Your task to perform on an android device: Find coffee shops on Maps Image 0: 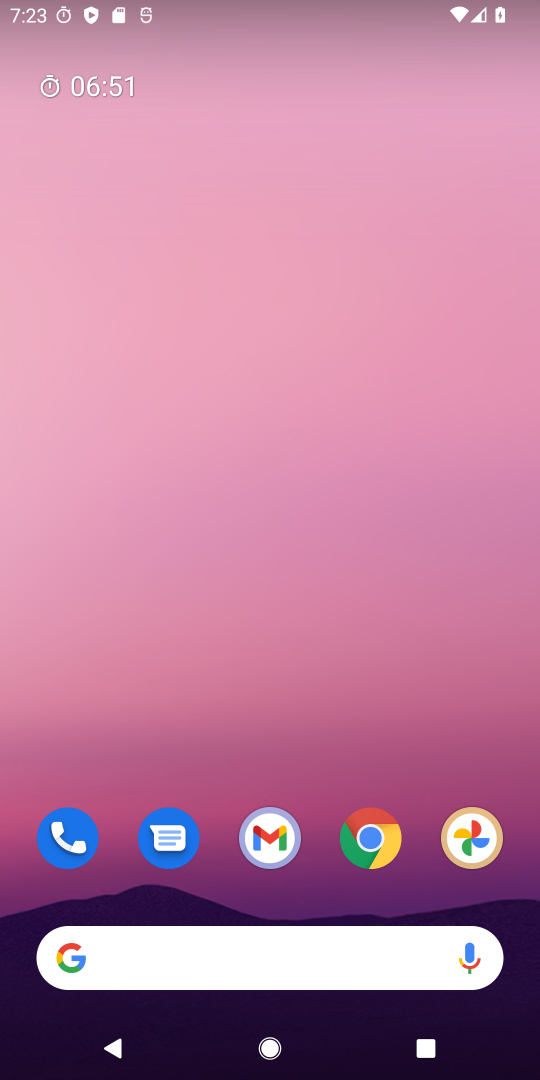
Step 0: drag from (321, 813) to (442, 71)
Your task to perform on an android device: Find coffee shops on Maps Image 1: 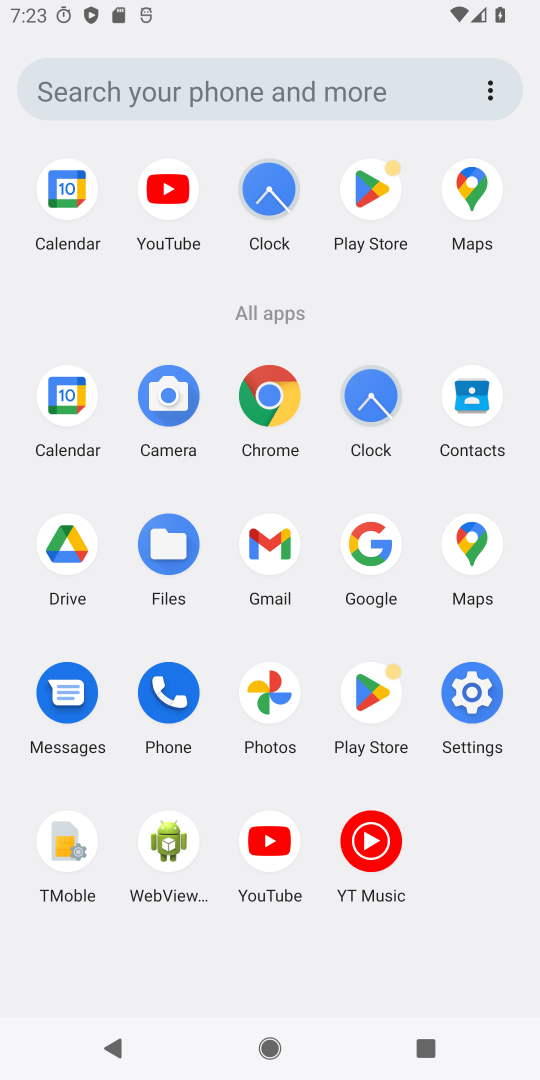
Step 1: click (476, 536)
Your task to perform on an android device: Find coffee shops on Maps Image 2: 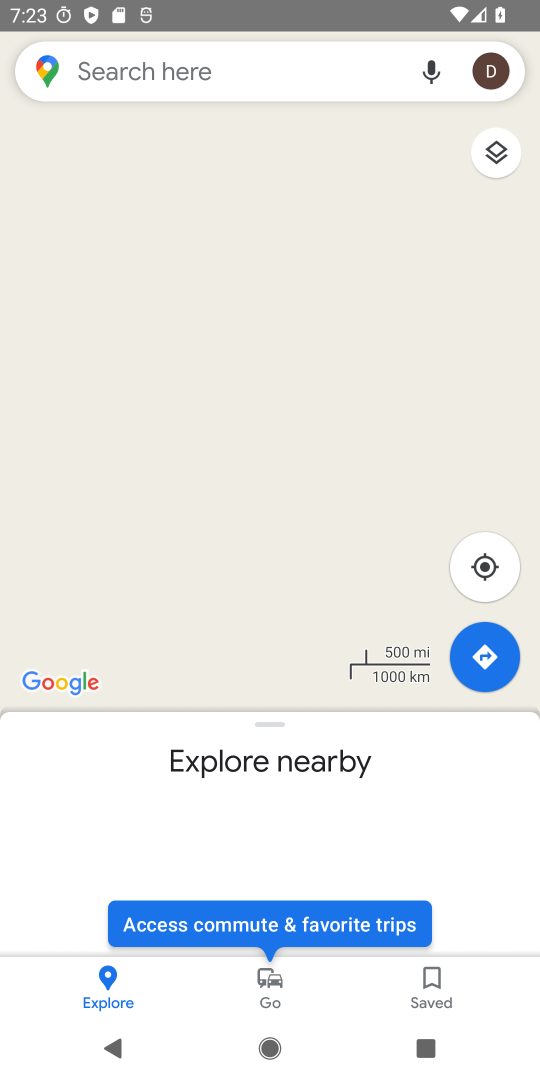
Step 2: click (184, 77)
Your task to perform on an android device: Find coffee shops on Maps Image 3: 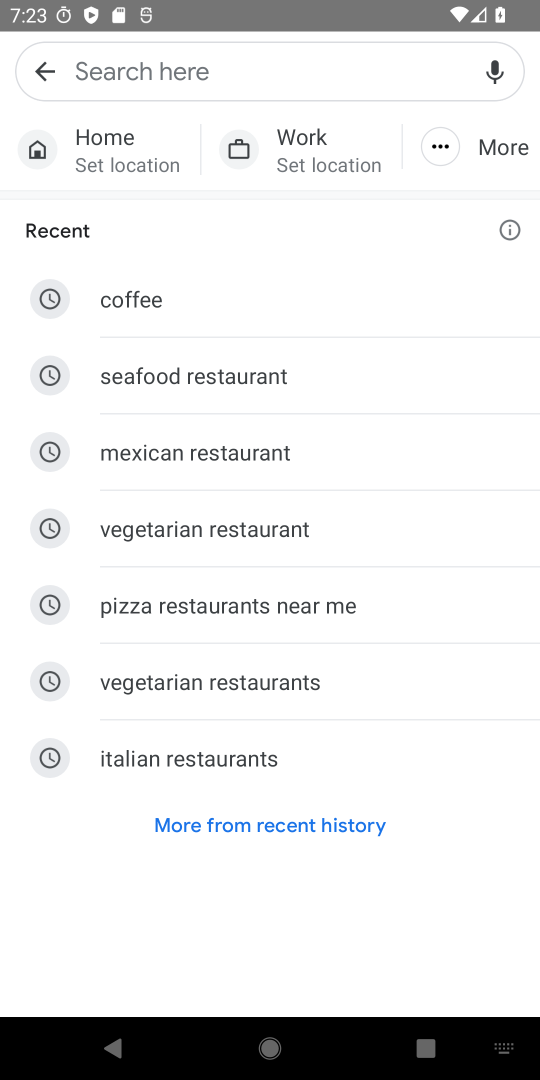
Step 3: type "coffee shops"
Your task to perform on an android device: Find coffee shops on Maps Image 4: 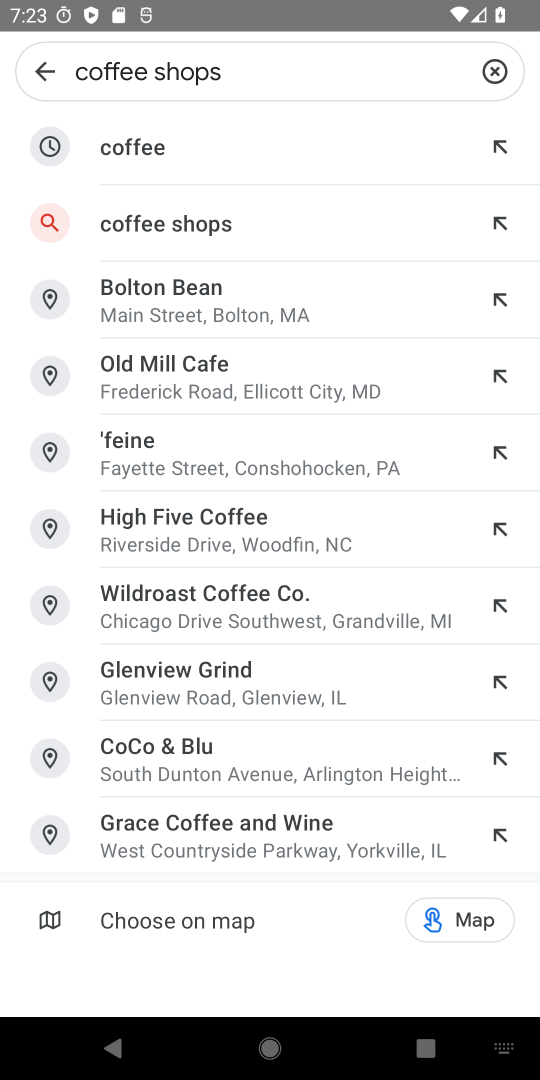
Step 4: click (167, 222)
Your task to perform on an android device: Find coffee shops on Maps Image 5: 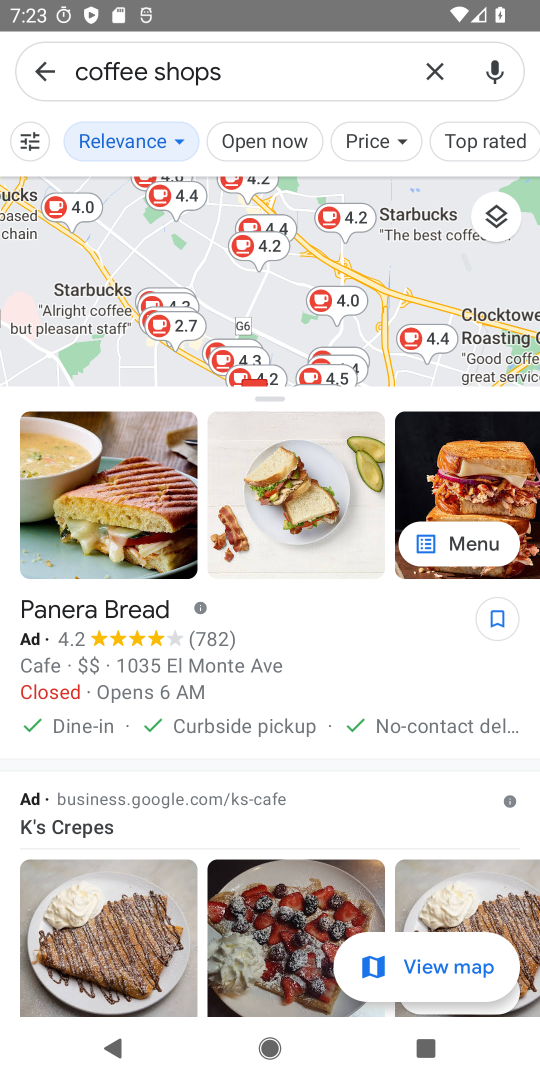
Step 5: task complete